Your task to perform on an android device: uninstall "Google Duo" Image 0: 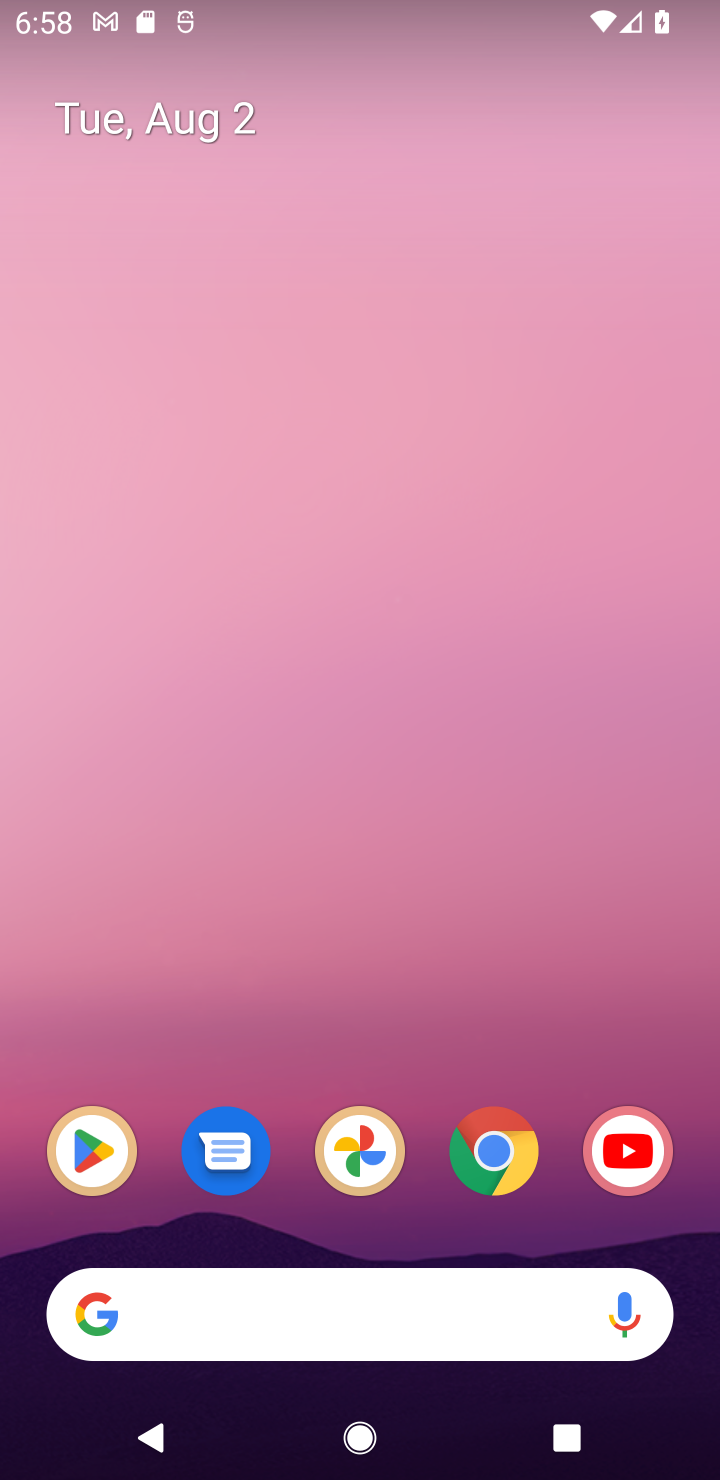
Step 0: click (80, 1113)
Your task to perform on an android device: uninstall "Google Duo" Image 1: 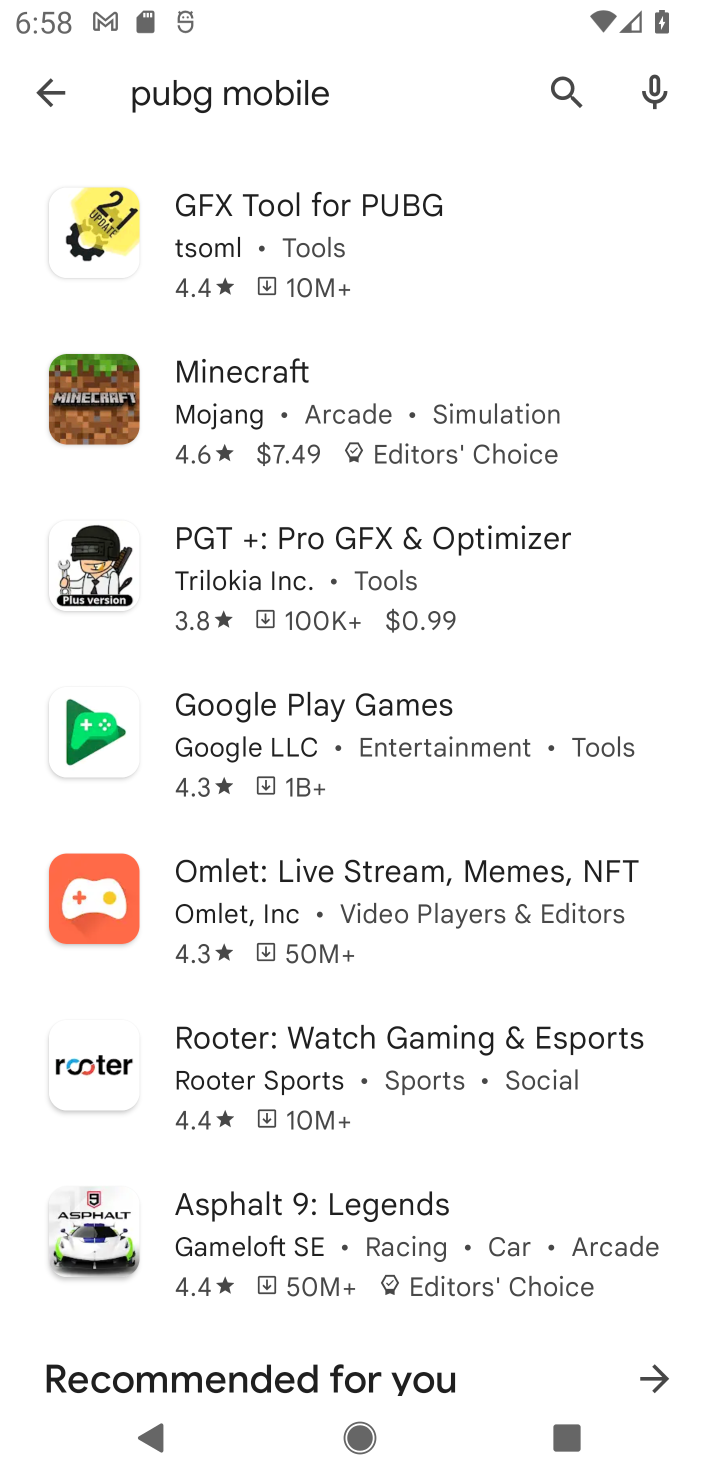
Step 1: click (582, 72)
Your task to perform on an android device: uninstall "Google Duo" Image 2: 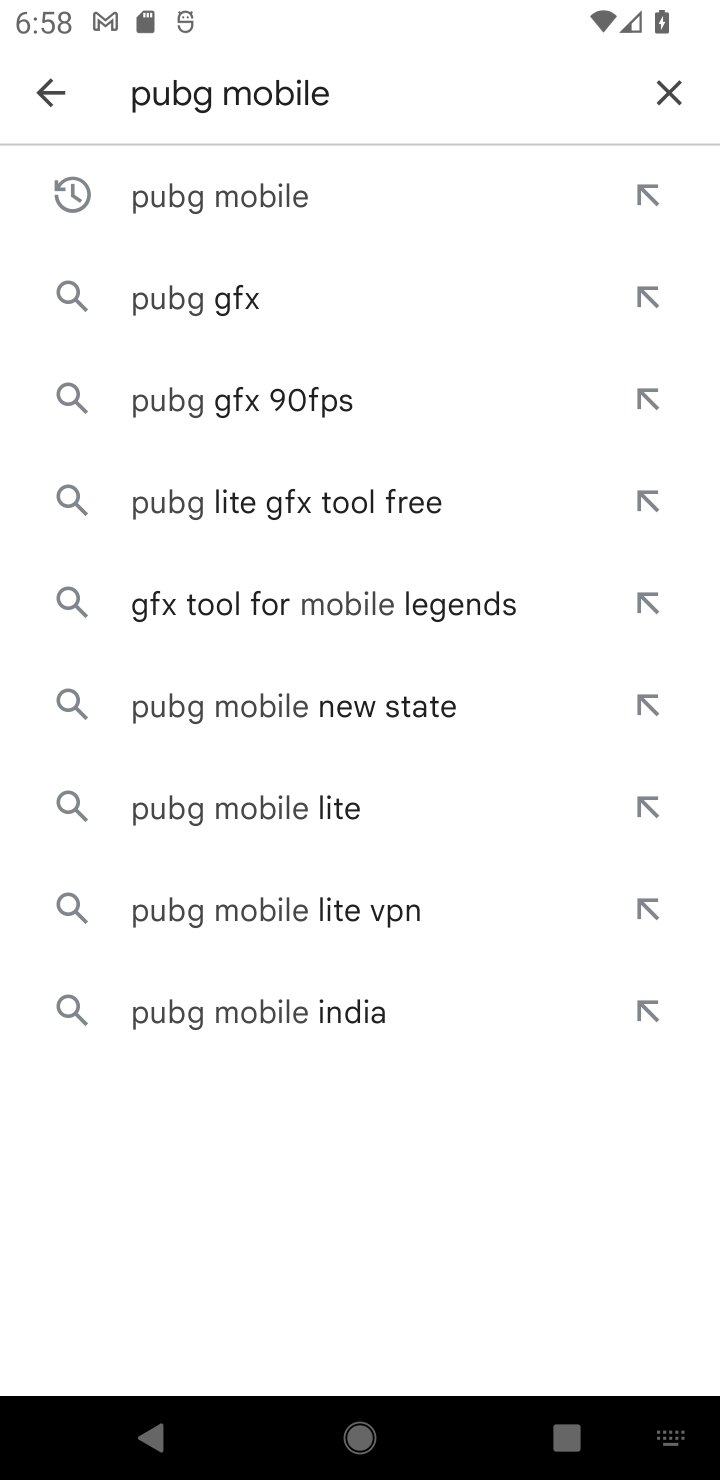
Step 2: click (646, 98)
Your task to perform on an android device: uninstall "Google Duo" Image 3: 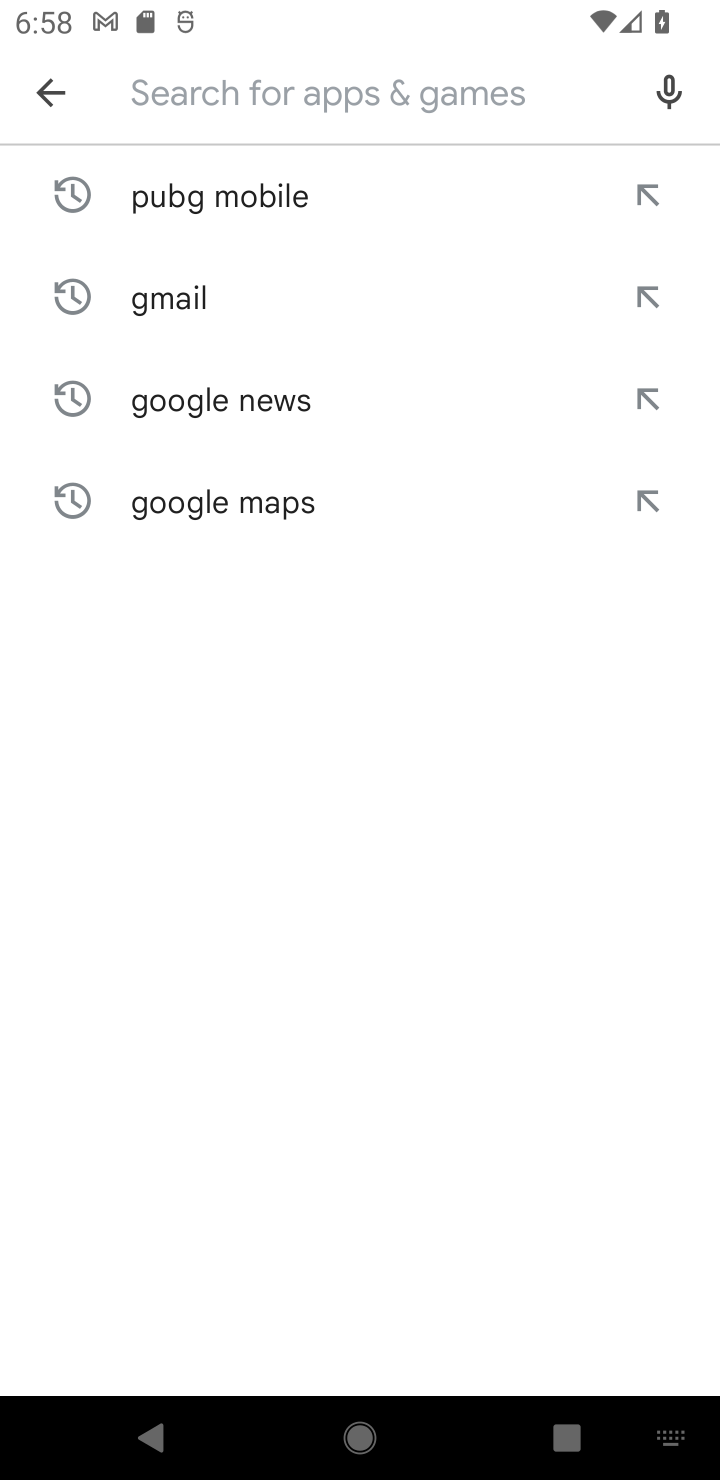
Step 3: type "Google Duo"
Your task to perform on an android device: uninstall "Google Duo" Image 4: 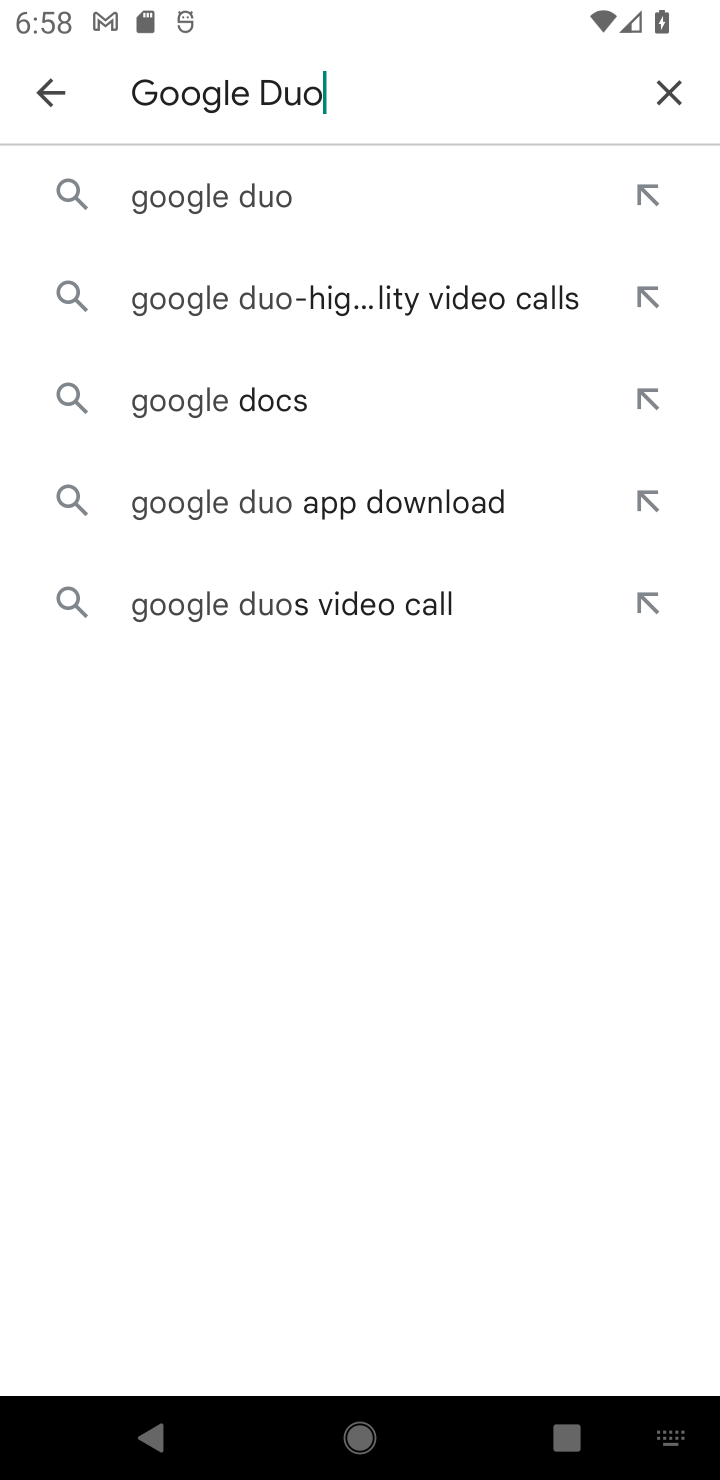
Step 4: click (322, 189)
Your task to perform on an android device: uninstall "Google Duo" Image 5: 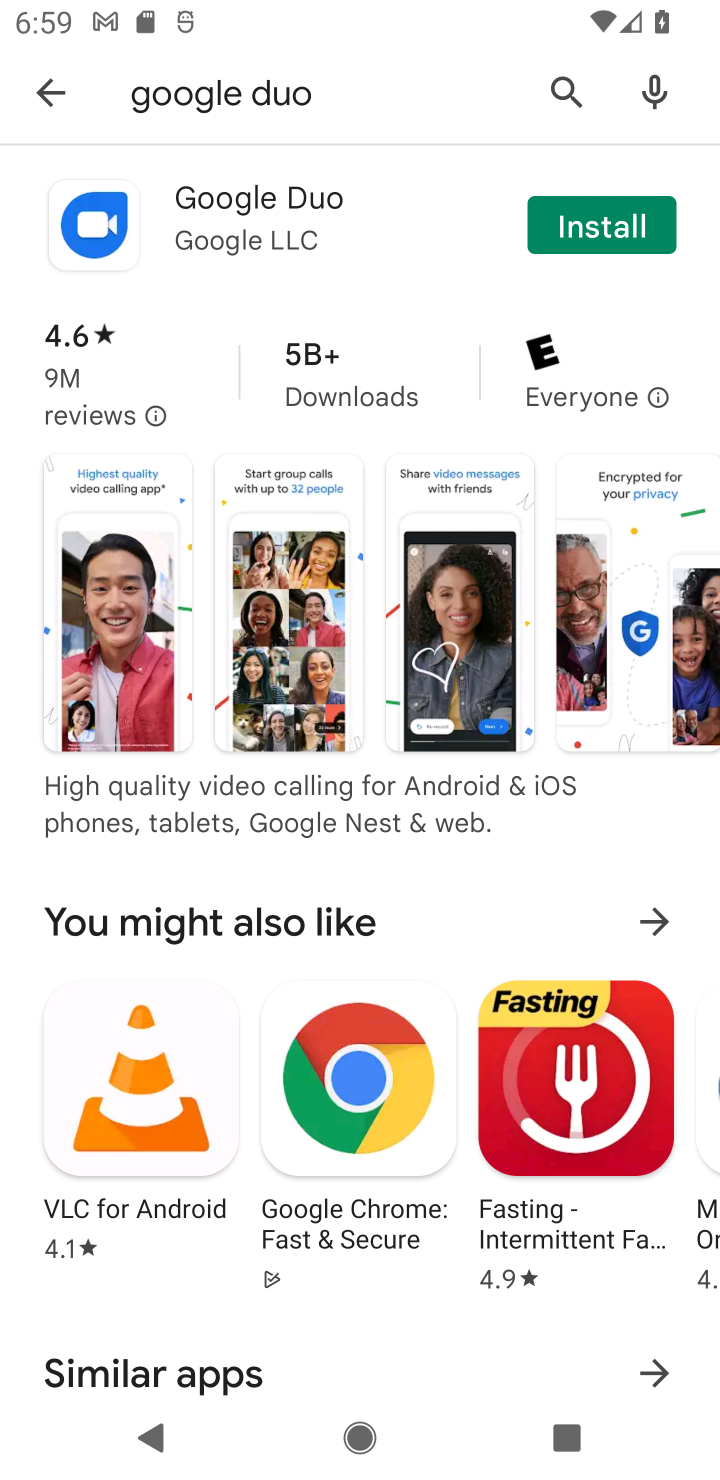
Step 5: task complete